Your task to perform on an android device: Go to Google maps Image 0: 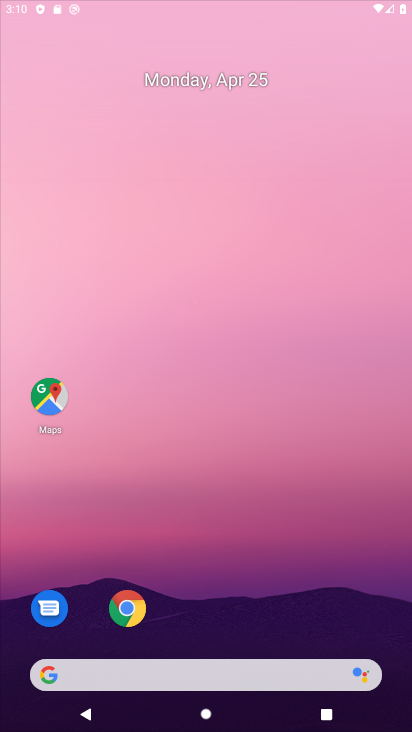
Step 0: drag from (281, 313) to (388, 16)
Your task to perform on an android device: Go to Google maps Image 1: 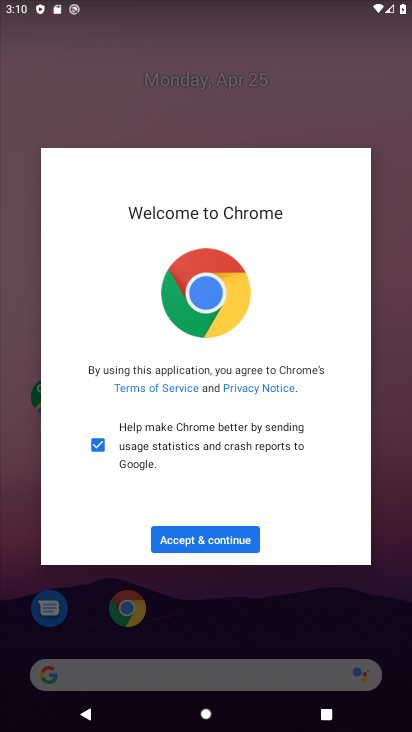
Step 1: press home button
Your task to perform on an android device: Go to Google maps Image 2: 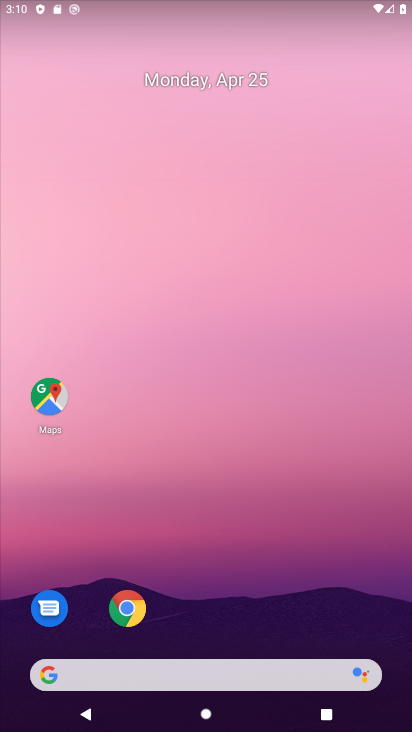
Step 2: drag from (239, 570) to (354, 186)
Your task to perform on an android device: Go to Google maps Image 3: 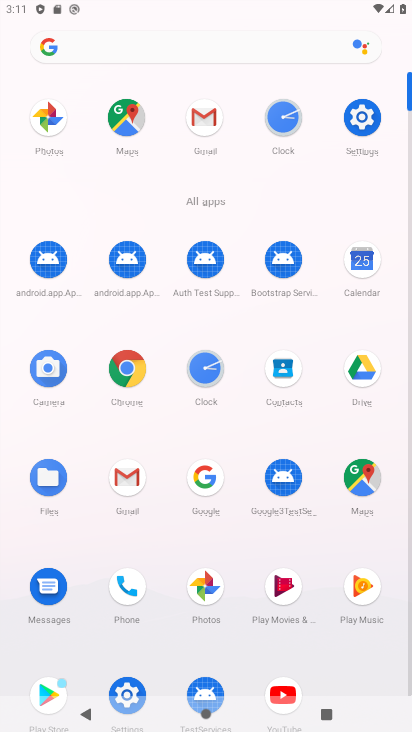
Step 3: click (370, 495)
Your task to perform on an android device: Go to Google maps Image 4: 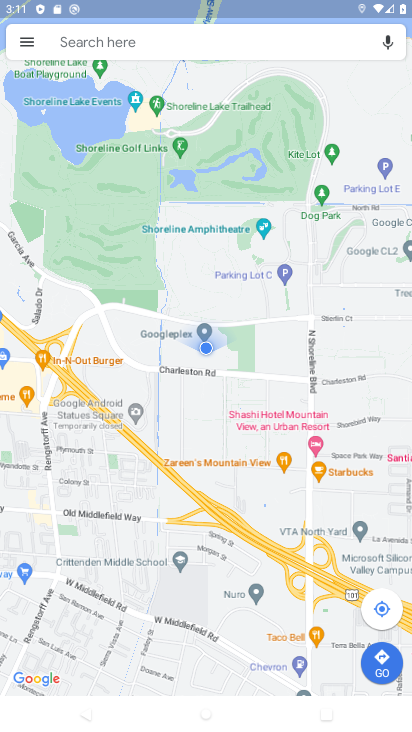
Step 4: task complete